Your task to perform on an android device: Go to Google maps Image 0: 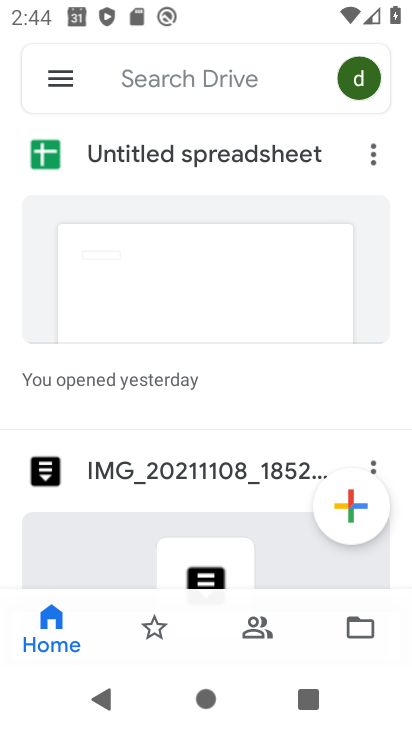
Step 0: press home button
Your task to perform on an android device: Go to Google maps Image 1: 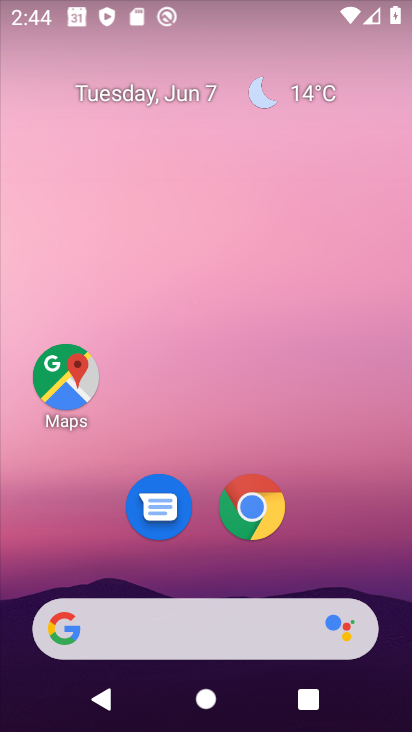
Step 1: click (61, 382)
Your task to perform on an android device: Go to Google maps Image 2: 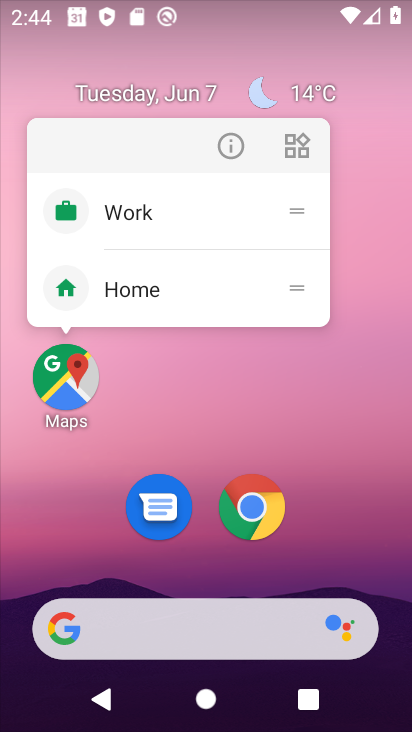
Step 2: click (66, 384)
Your task to perform on an android device: Go to Google maps Image 3: 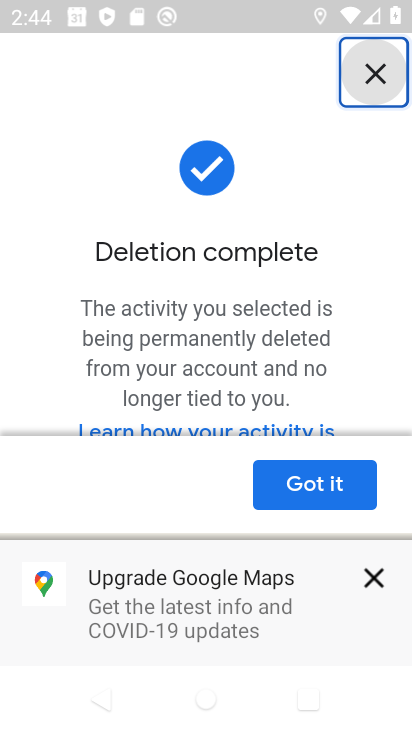
Step 3: click (382, 75)
Your task to perform on an android device: Go to Google maps Image 4: 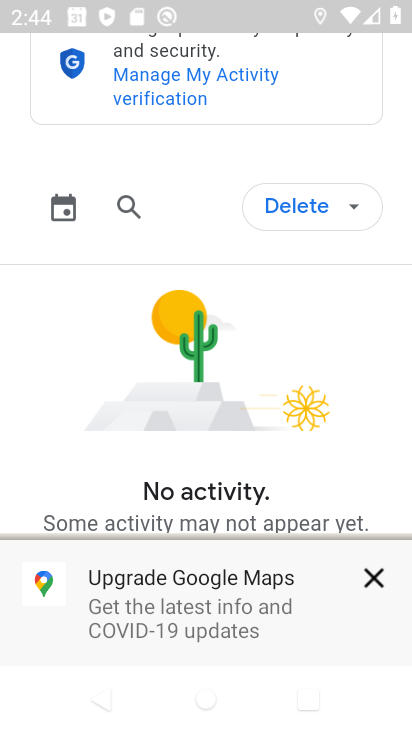
Step 4: click (375, 575)
Your task to perform on an android device: Go to Google maps Image 5: 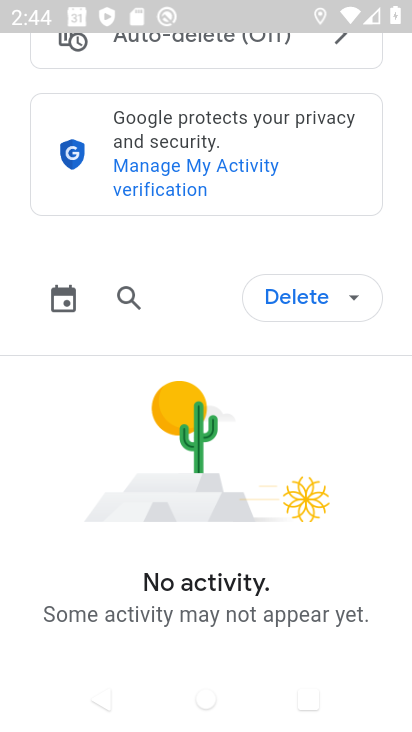
Step 5: task complete